Your task to perform on an android device: Go to Reddit.com Image 0: 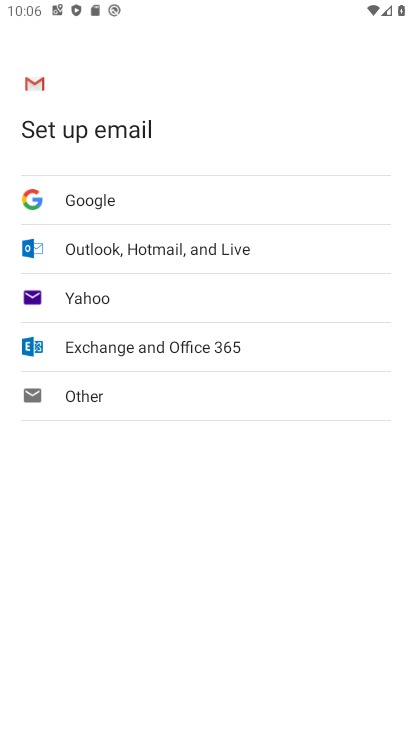
Step 0: press home button
Your task to perform on an android device: Go to Reddit.com Image 1: 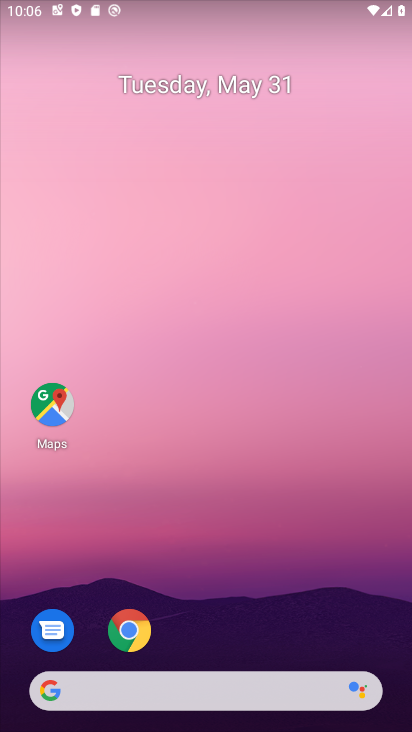
Step 1: drag from (295, 594) to (350, 154)
Your task to perform on an android device: Go to Reddit.com Image 2: 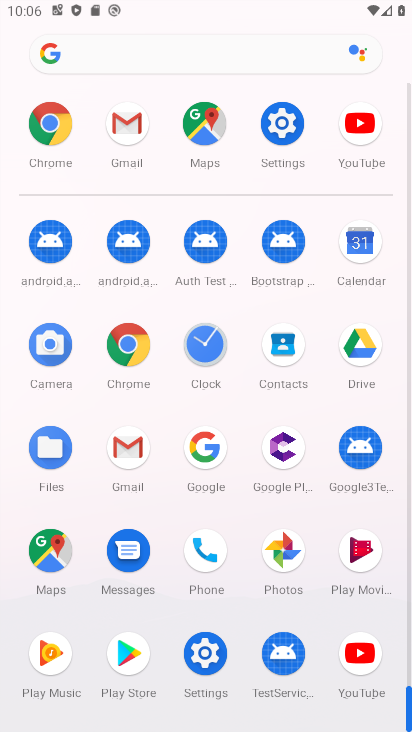
Step 2: click (58, 140)
Your task to perform on an android device: Go to Reddit.com Image 3: 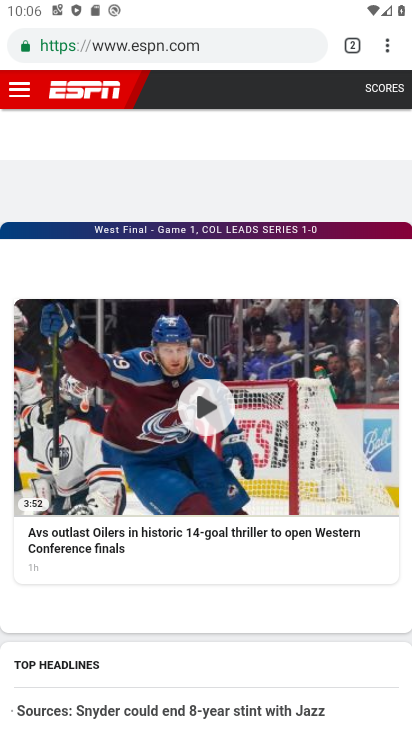
Step 3: click (193, 46)
Your task to perform on an android device: Go to Reddit.com Image 4: 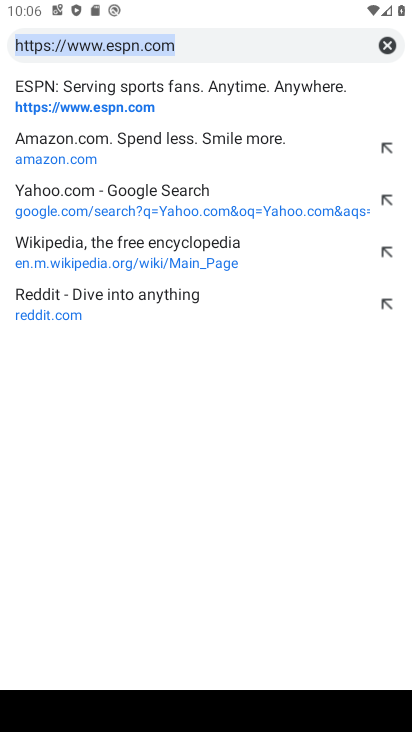
Step 4: click (158, 311)
Your task to perform on an android device: Go to Reddit.com Image 5: 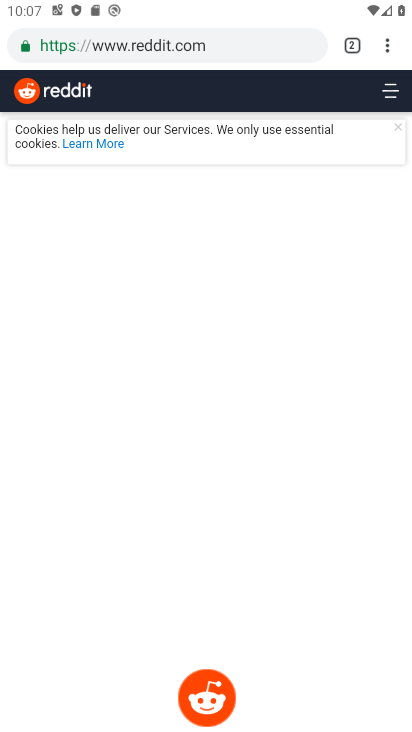
Step 5: task complete